Your task to perform on an android device: Show the shopping cart on walmart. Search for logitech g910 on walmart, select the first entry, add it to the cart, then select checkout. Image 0: 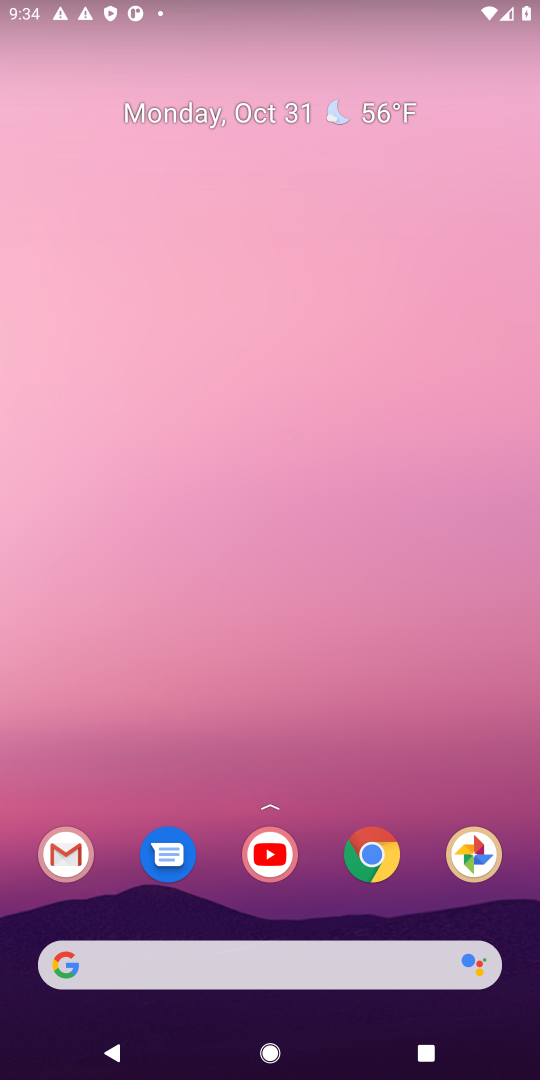
Step 0: click (291, 961)
Your task to perform on an android device: Show the shopping cart on walmart. Search for logitech g910 on walmart, select the first entry, add it to the cart, then select checkout. Image 1: 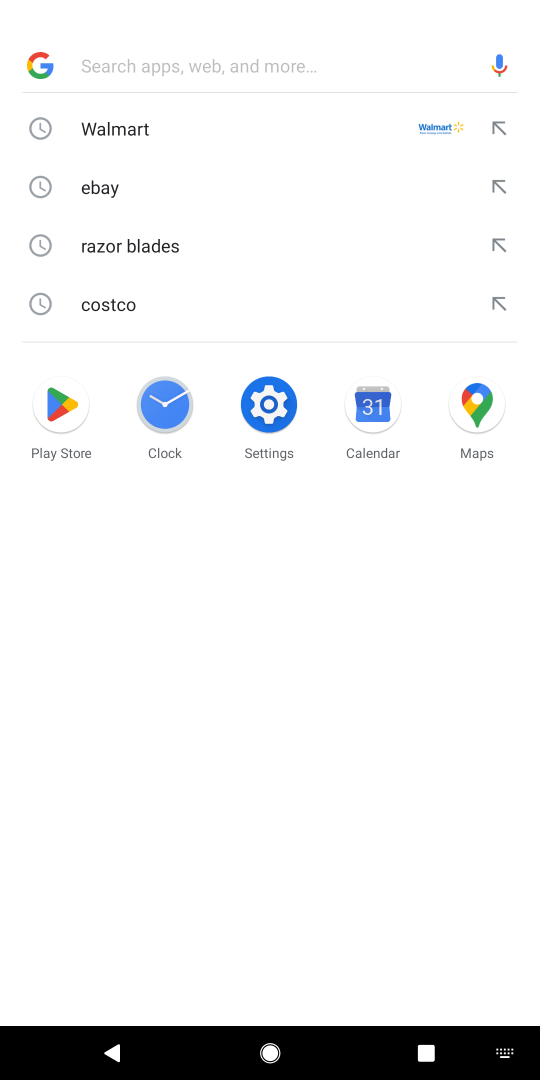
Step 1: type "walmart"
Your task to perform on an android device: Show the shopping cart on walmart. Search for logitech g910 on walmart, select the first entry, add it to the cart, then select checkout. Image 2: 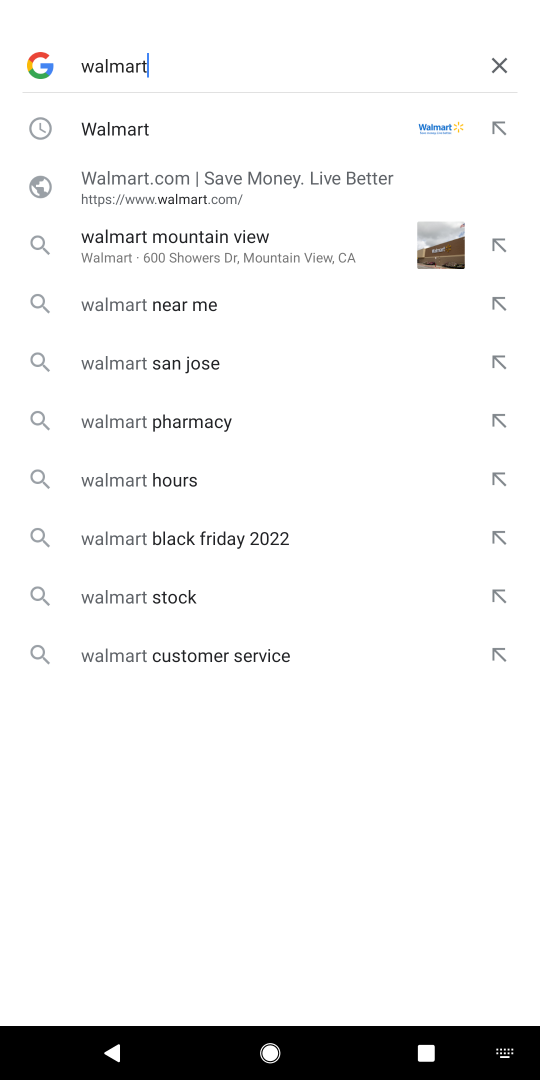
Step 2: click (213, 125)
Your task to perform on an android device: Show the shopping cart on walmart. Search for logitech g910 on walmart, select the first entry, add it to the cart, then select checkout. Image 3: 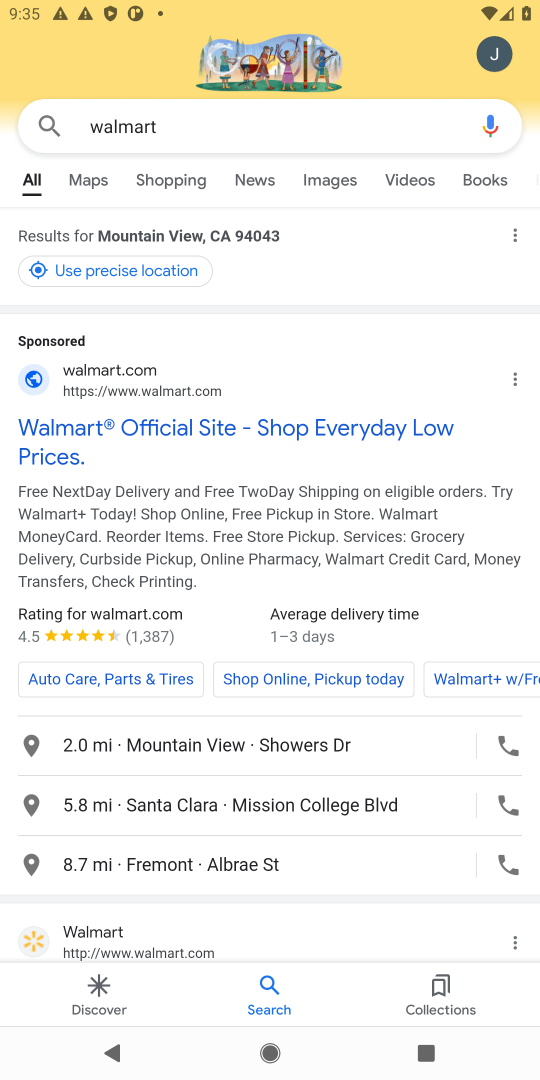
Step 3: click (111, 443)
Your task to perform on an android device: Show the shopping cart on walmart. Search for logitech g910 on walmart, select the first entry, add it to the cart, then select checkout. Image 4: 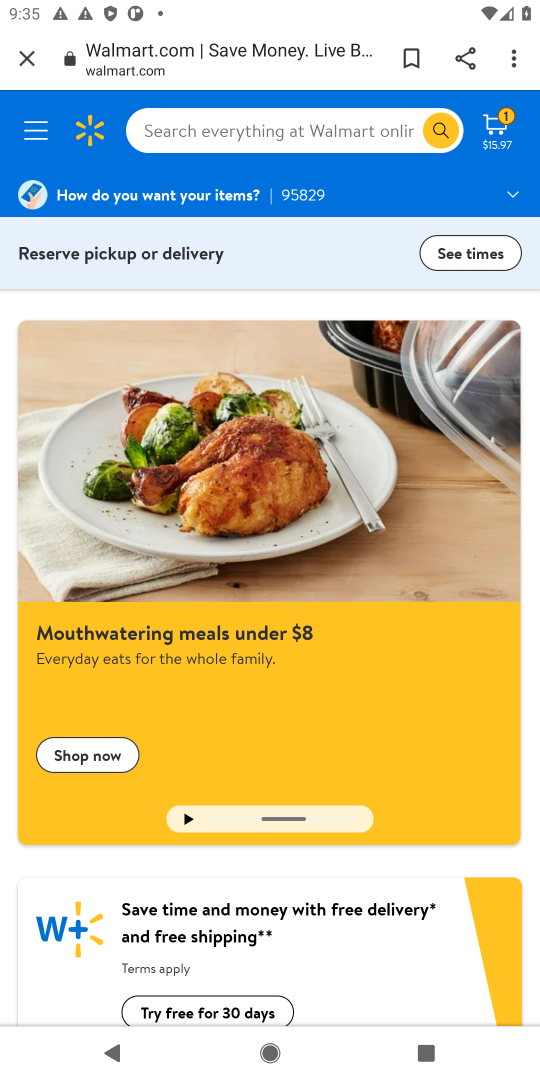
Step 4: click (244, 114)
Your task to perform on an android device: Show the shopping cart on walmart. Search for logitech g910 on walmart, select the first entry, add it to the cart, then select checkout. Image 5: 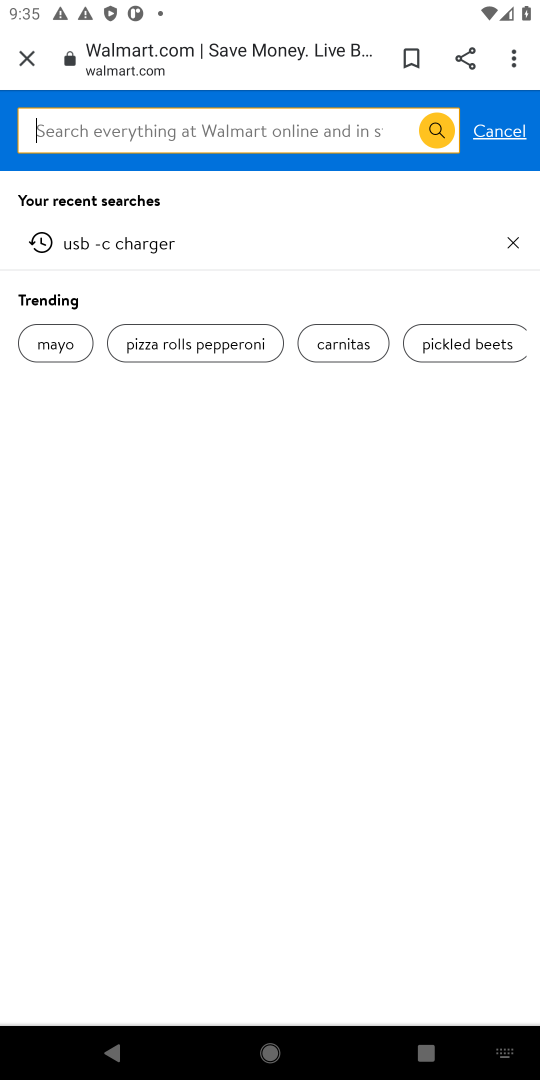
Step 5: type "logitch g910"
Your task to perform on an android device: Show the shopping cart on walmart. Search for logitech g910 on walmart, select the first entry, add it to the cart, then select checkout. Image 6: 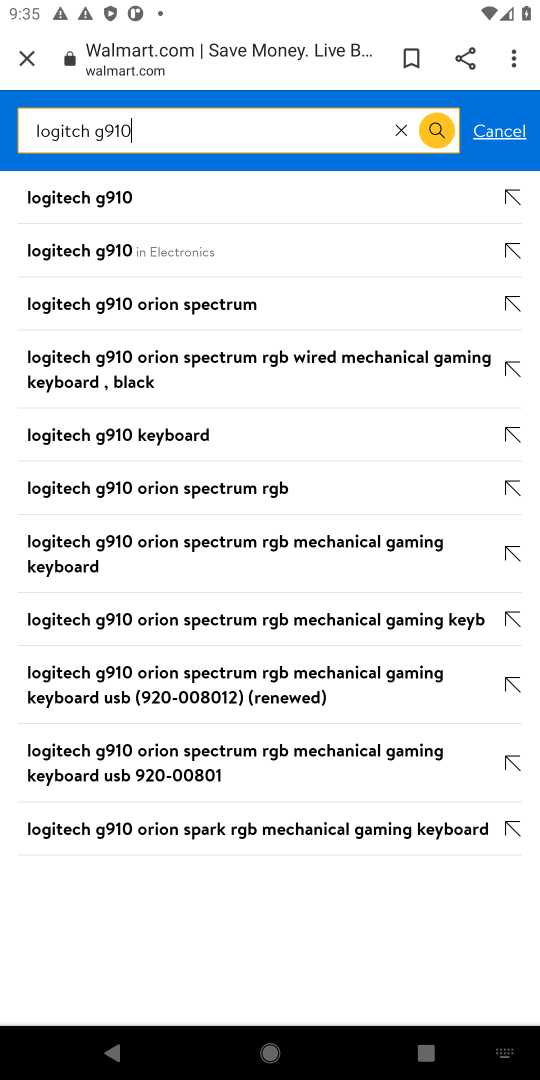
Step 6: click (197, 190)
Your task to perform on an android device: Show the shopping cart on walmart. Search for logitech g910 on walmart, select the first entry, add it to the cart, then select checkout. Image 7: 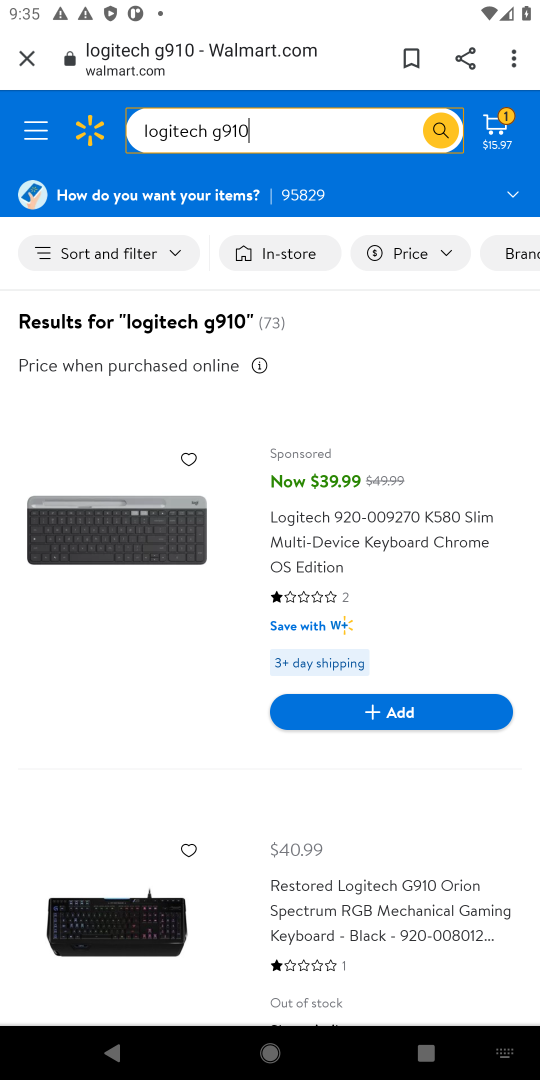
Step 7: click (331, 727)
Your task to perform on an android device: Show the shopping cart on walmart. Search for logitech g910 on walmart, select the first entry, add it to the cart, then select checkout. Image 8: 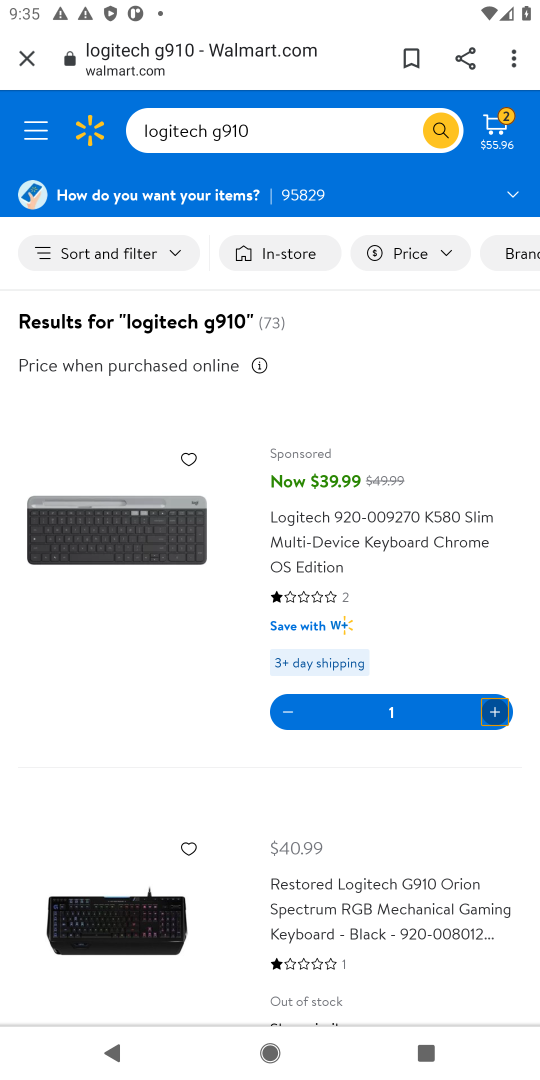
Step 8: task complete